Your task to perform on an android device: make emails show in primary in the gmail app Image 0: 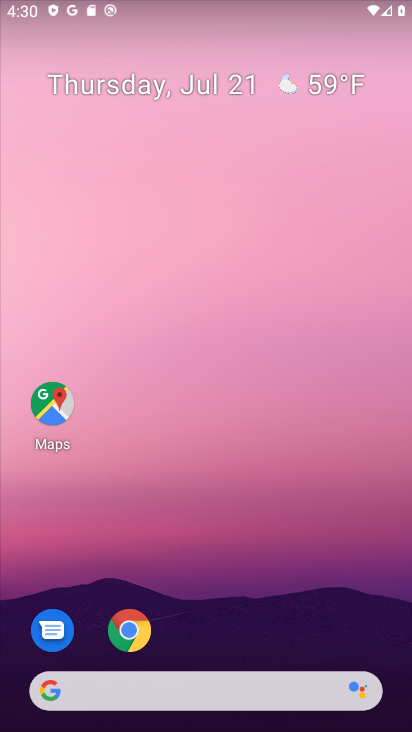
Step 0: drag from (241, 332) to (219, 162)
Your task to perform on an android device: make emails show in primary in the gmail app Image 1: 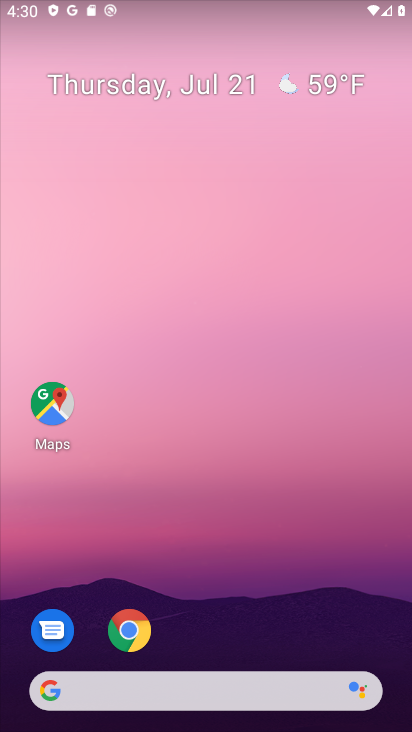
Step 1: drag from (260, 672) to (193, 177)
Your task to perform on an android device: make emails show in primary in the gmail app Image 2: 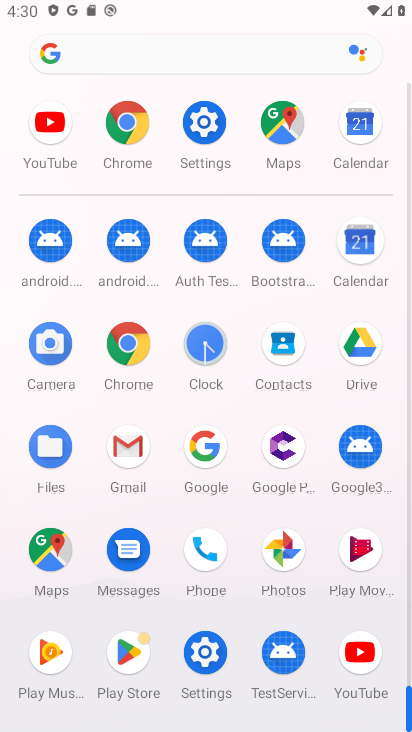
Step 2: click (125, 444)
Your task to perform on an android device: make emails show in primary in the gmail app Image 3: 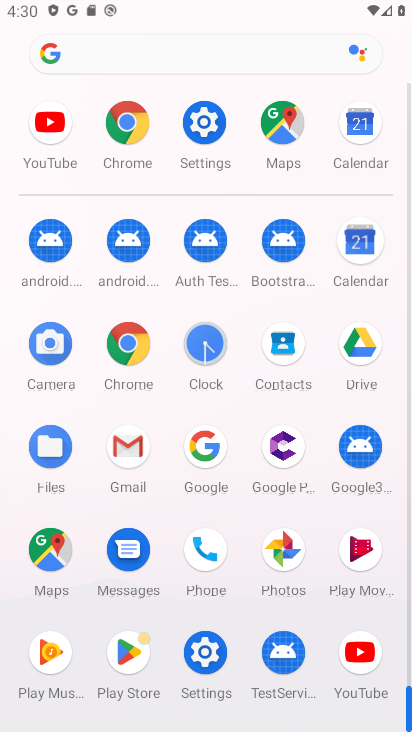
Step 3: click (125, 443)
Your task to perform on an android device: make emails show in primary in the gmail app Image 4: 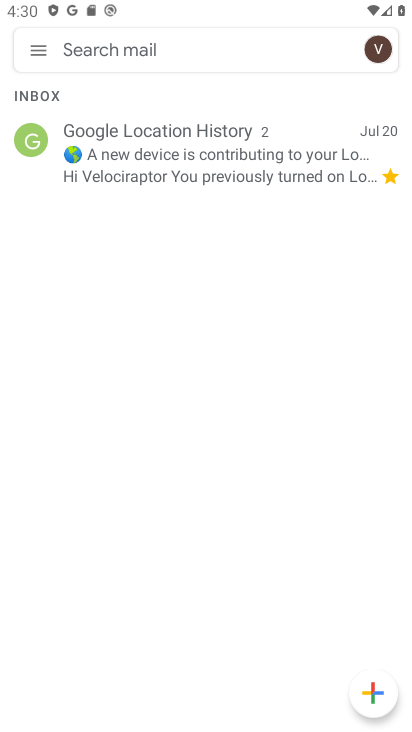
Step 4: click (25, 52)
Your task to perform on an android device: make emails show in primary in the gmail app Image 5: 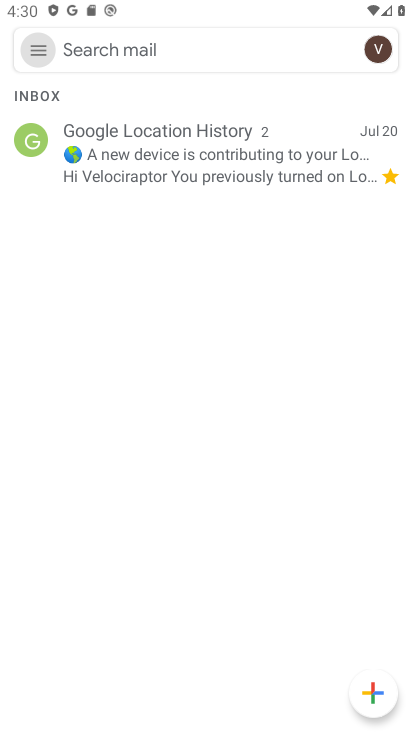
Step 5: click (25, 52)
Your task to perform on an android device: make emails show in primary in the gmail app Image 6: 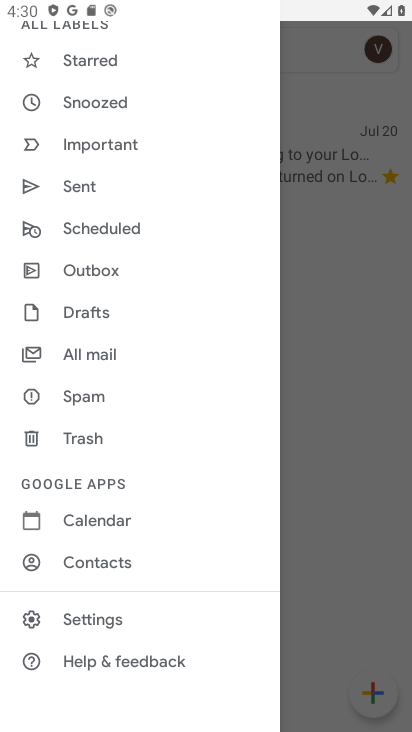
Step 6: click (79, 603)
Your task to perform on an android device: make emails show in primary in the gmail app Image 7: 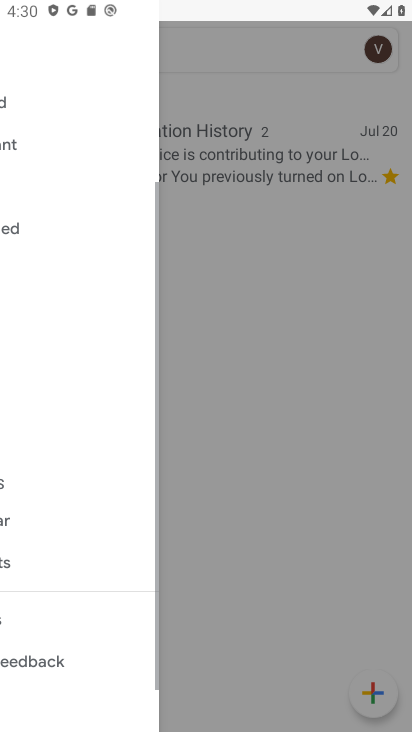
Step 7: click (73, 606)
Your task to perform on an android device: make emails show in primary in the gmail app Image 8: 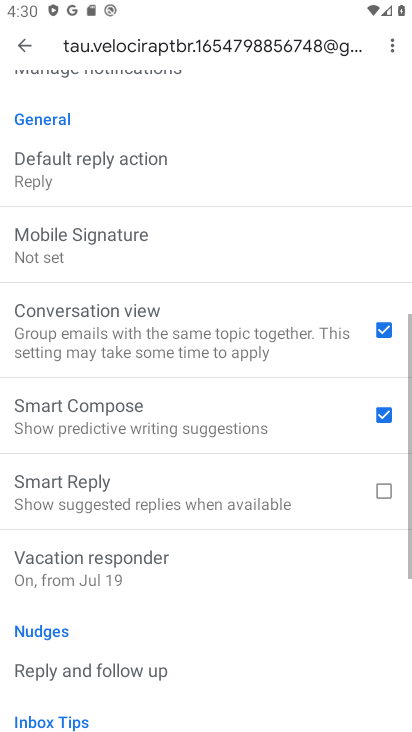
Step 8: drag from (117, 416) to (108, 111)
Your task to perform on an android device: make emails show in primary in the gmail app Image 9: 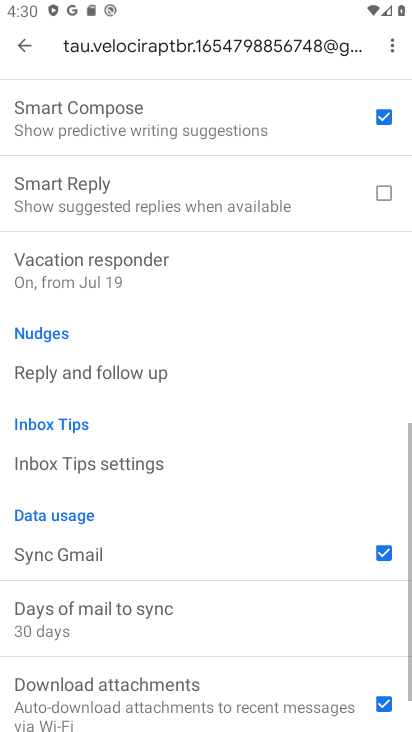
Step 9: drag from (143, 418) to (160, 154)
Your task to perform on an android device: make emails show in primary in the gmail app Image 10: 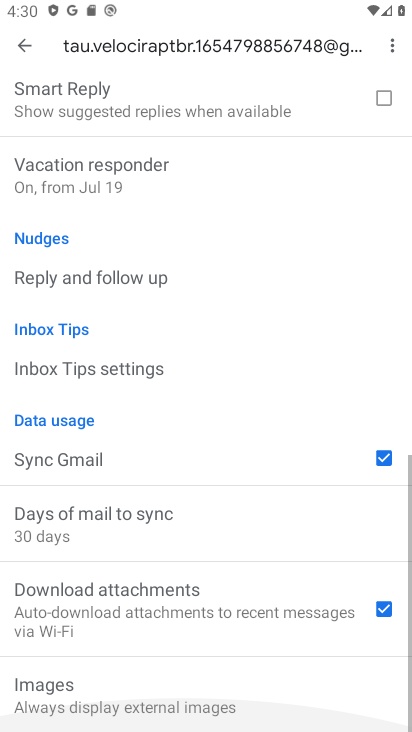
Step 10: drag from (153, 447) to (152, 80)
Your task to perform on an android device: make emails show in primary in the gmail app Image 11: 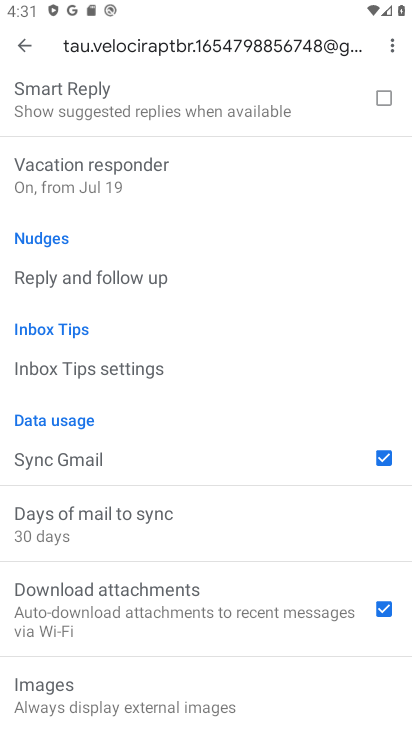
Step 11: drag from (79, 433) to (87, 228)
Your task to perform on an android device: make emails show in primary in the gmail app Image 12: 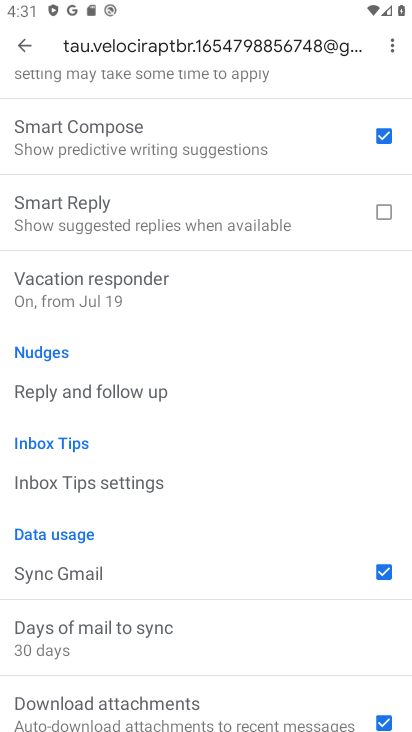
Step 12: drag from (63, 233) to (106, 586)
Your task to perform on an android device: make emails show in primary in the gmail app Image 13: 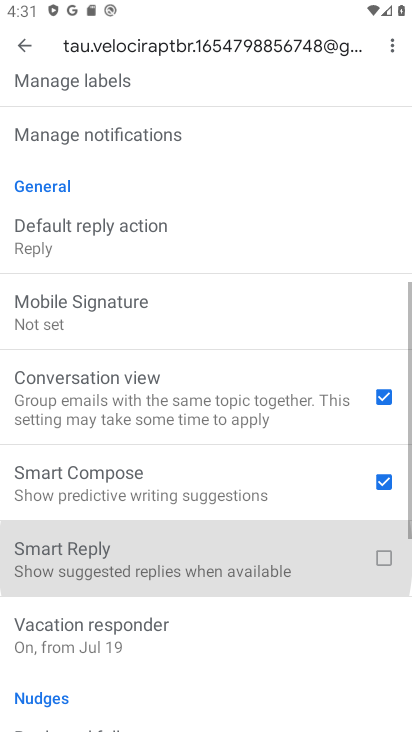
Step 13: drag from (96, 261) to (149, 551)
Your task to perform on an android device: make emails show in primary in the gmail app Image 14: 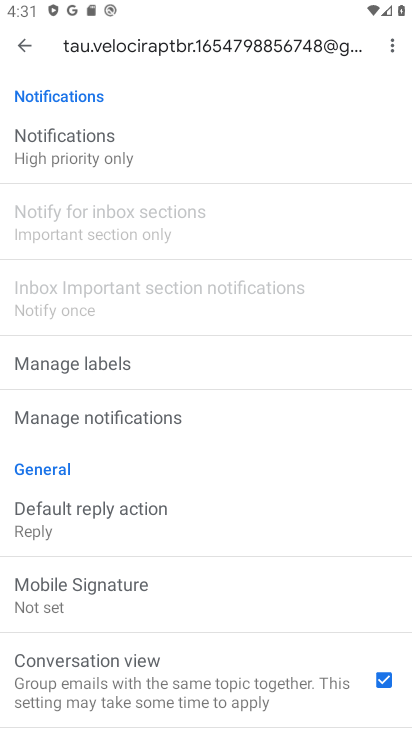
Step 14: drag from (72, 151) to (115, 562)
Your task to perform on an android device: make emails show in primary in the gmail app Image 15: 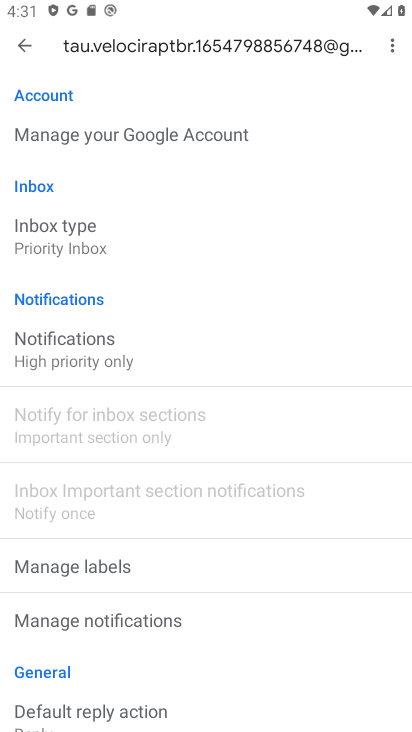
Step 15: click (44, 242)
Your task to perform on an android device: make emails show in primary in the gmail app Image 16: 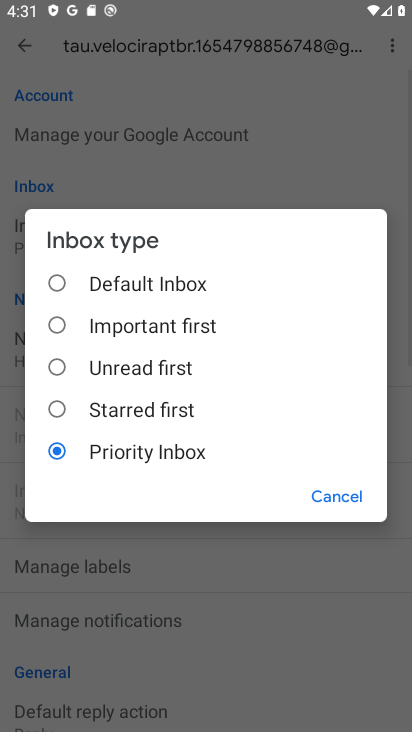
Step 16: click (56, 281)
Your task to perform on an android device: make emails show in primary in the gmail app Image 17: 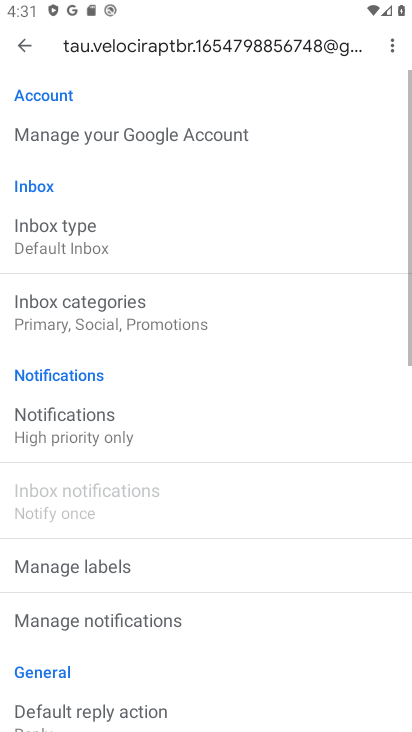
Step 17: task complete